Your task to perform on an android device: Open Youtube and go to "Your channel" Image 0: 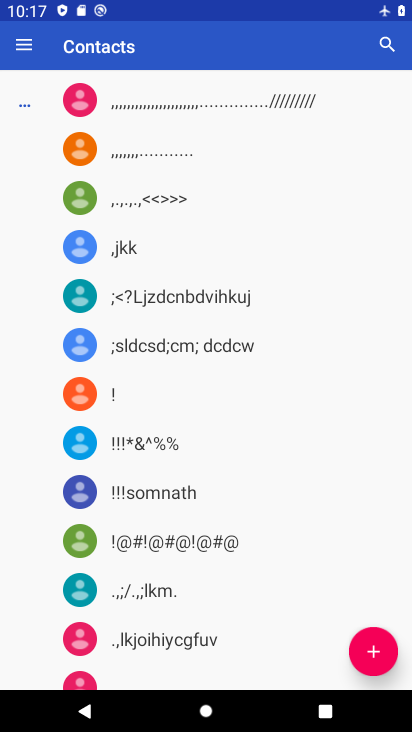
Step 0: press back button
Your task to perform on an android device: Open Youtube and go to "Your channel" Image 1: 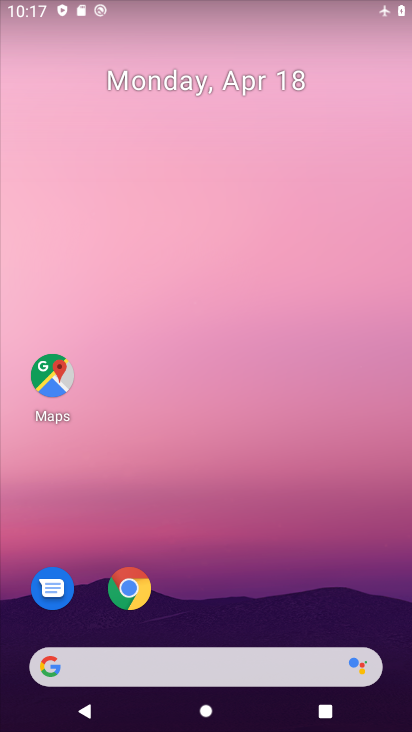
Step 1: drag from (313, 566) to (255, 1)
Your task to perform on an android device: Open Youtube and go to "Your channel" Image 2: 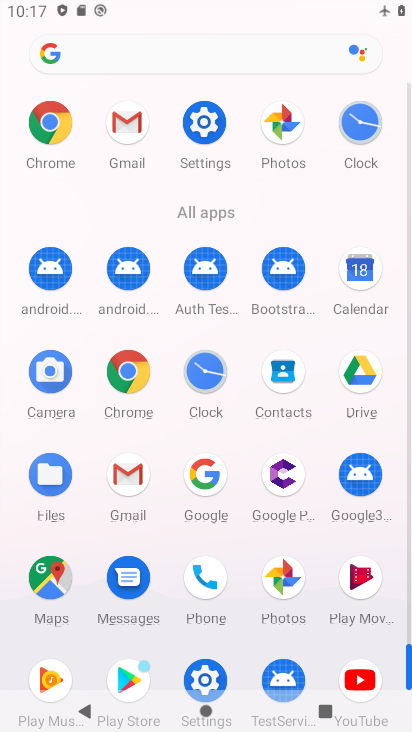
Step 2: click (354, 679)
Your task to perform on an android device: Open Youtube and go to "Your channel" Image 3: 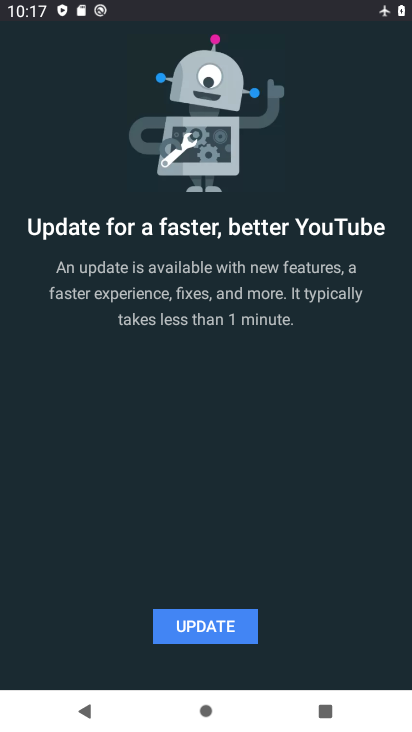
Step 3: click (238, 612)
Your task to perform on an android device: Open Youtube and go to "Your channel" Image 4: 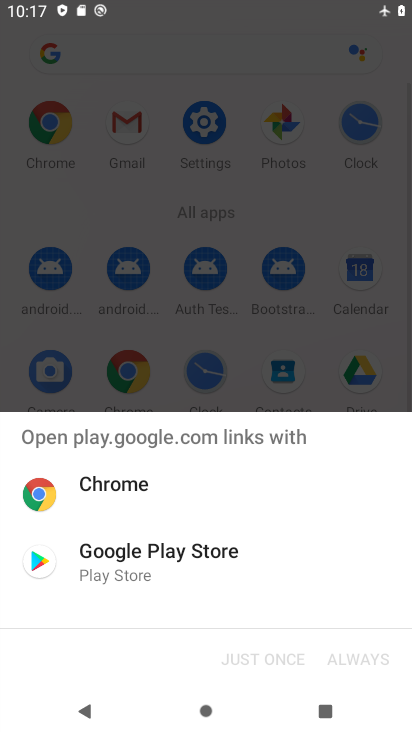
Step 4: click (88, 180)
Your task to perform on an android device: Open Youtube and go to "Your channel" Image 5: 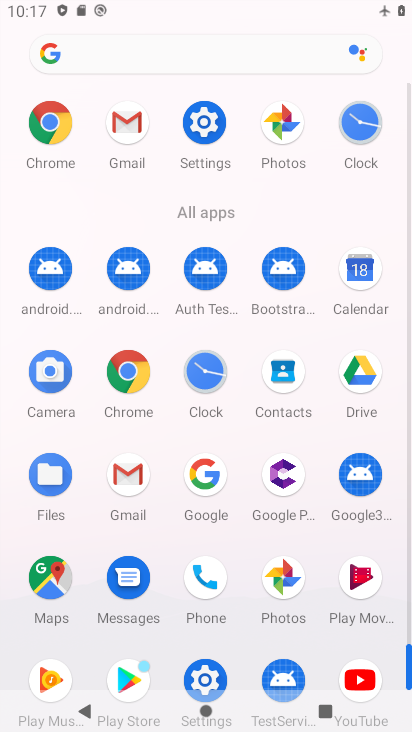
Step 5: click (361, 678)
Your task to perform on an android device: Open Youtube and go to "Your channel" Image 6: 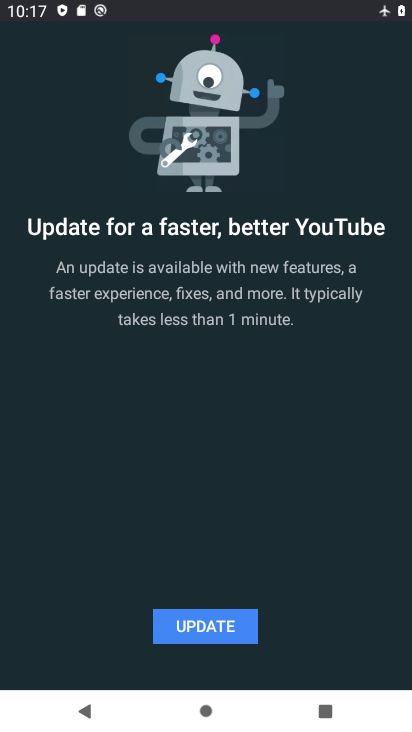
Step 6: click (176, 613)
Your task to perform on an android device: Open Youtube and go to "Your channel" Image 7: 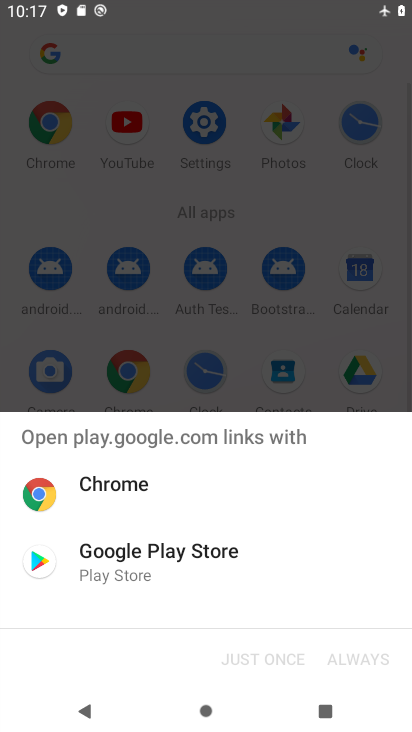
Step 7: click (175, 553)
Your task to perform on an android device: Open Youtube and go to "Your channel" Image 8: 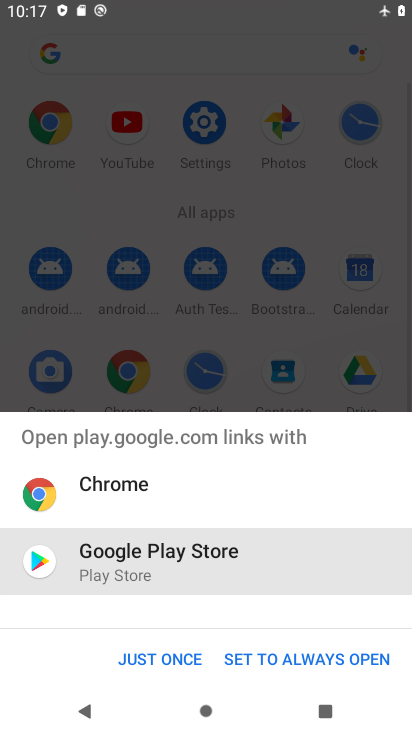
Step 8: click (354, 663)
Your task to perform on an android device: Open Youtube and go to "Your channel" Image 9: 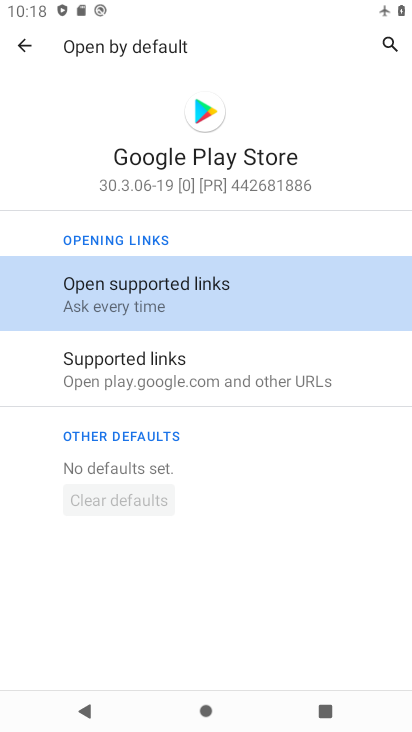
Step 9: click (188, 282)
Your task to perform on an android device: Open Youtube and go to "Your channel" Image 10: 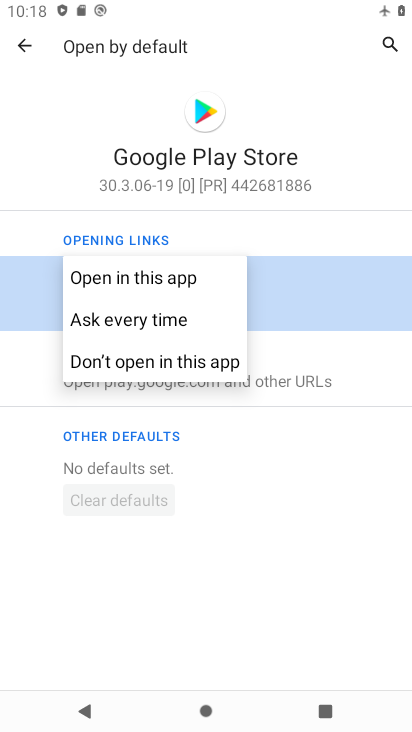
Step 10: click (179, 276)
Your task to perform on an android device: Open Youtube and go to "Your channel" Image 11: 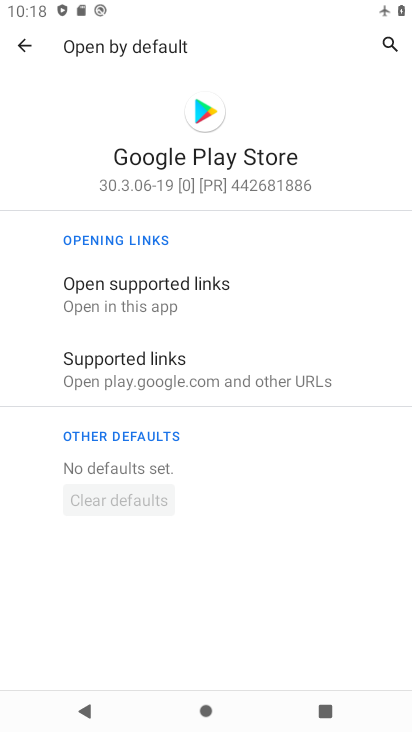
Step 11: click (22, 40)
Your task to perform on an android device: Open Youtube and go to "Your channel" Image 12: 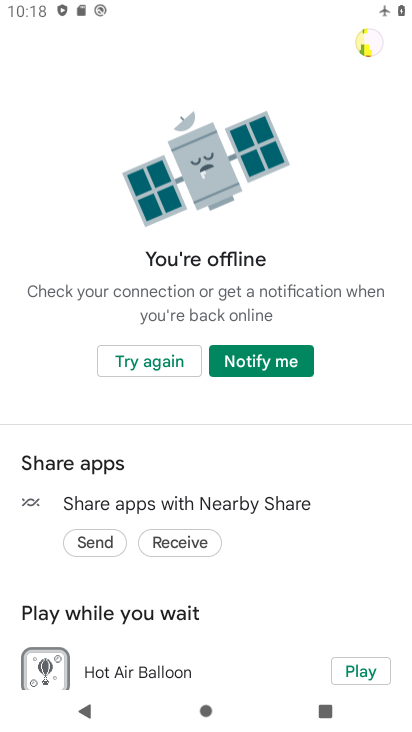
Step 12: click (168, 367)
Your task to perform on an android device: Open Youtube and go to "Your channel" Image 13: 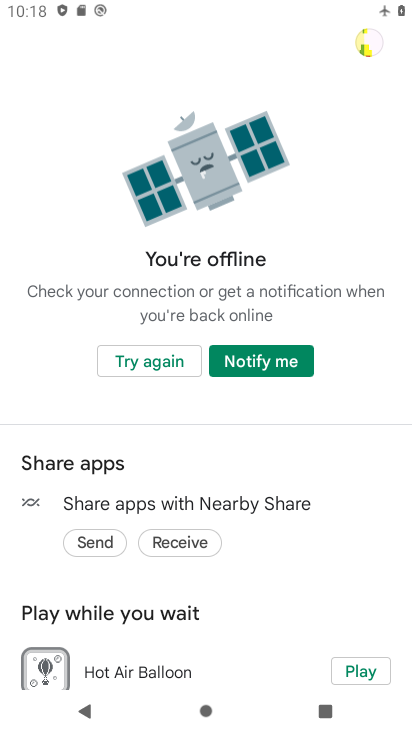
Step 13: drag from (234, 602) to (221, 265)
Your task to perform on an android device: Open Youtube and go to "Your channel" Image 14: 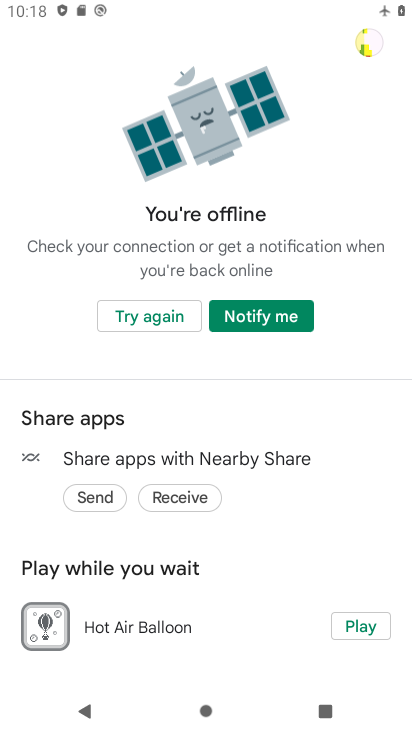
Step 14: click (152, 310)
Your task to perform on an android device: Open Youtube and go to "Your channel" Image 15: 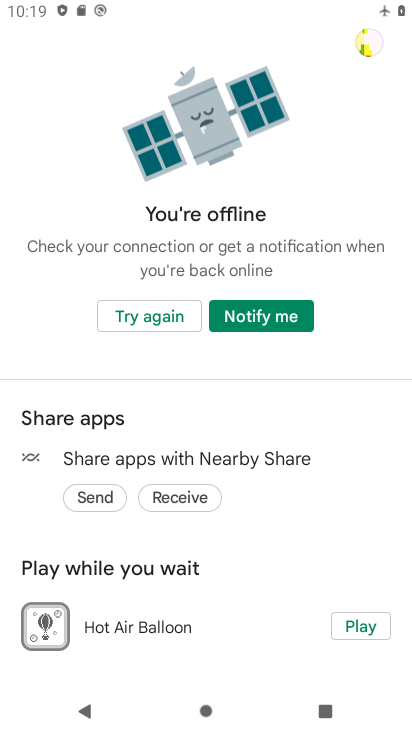
Step 15: task complete